Your task to perform on an android device: change timer sound Image 0: 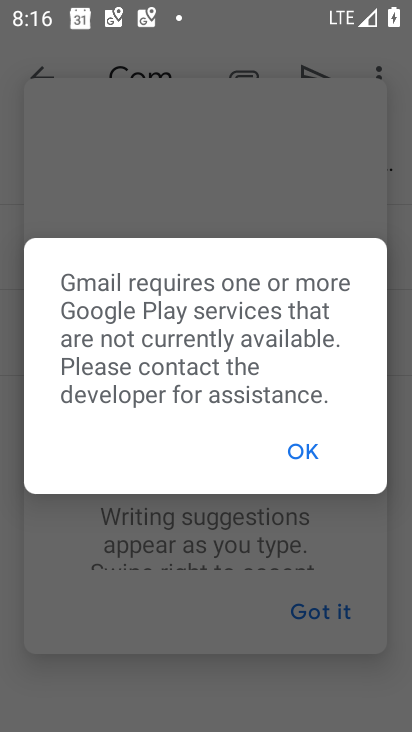
Step 0: press home button
Your task to perform on an android device: change timer sound Image 1: 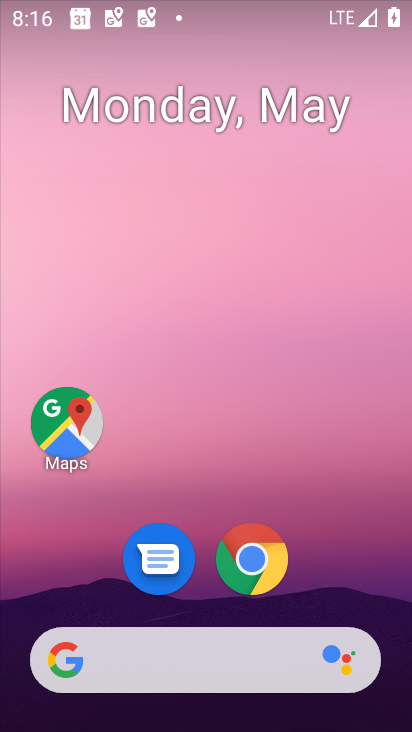
Step 1: drag from (392, 626) to (244, 32)
Your task to perform on an android device: change timer sound Image 2: 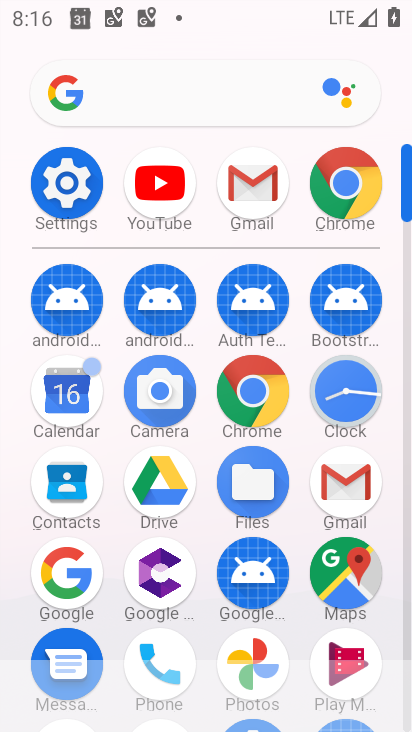
Step 2: click (344, 394)
Your task to perform on an android device: change timer sound Image 3: 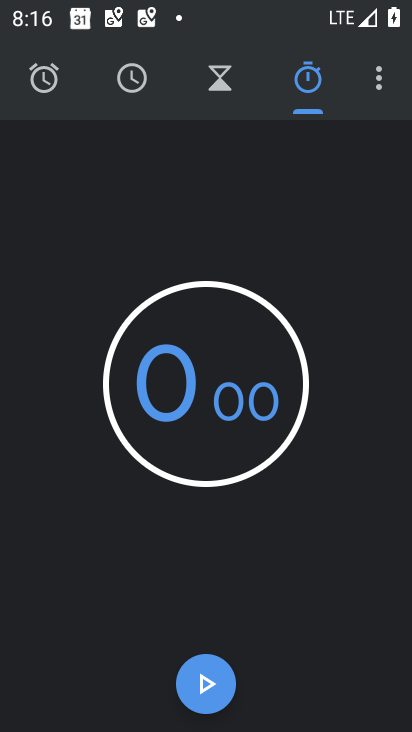
Step 3: click (386, 76)
Your task to perform on an android device: change timer sound Image 4: 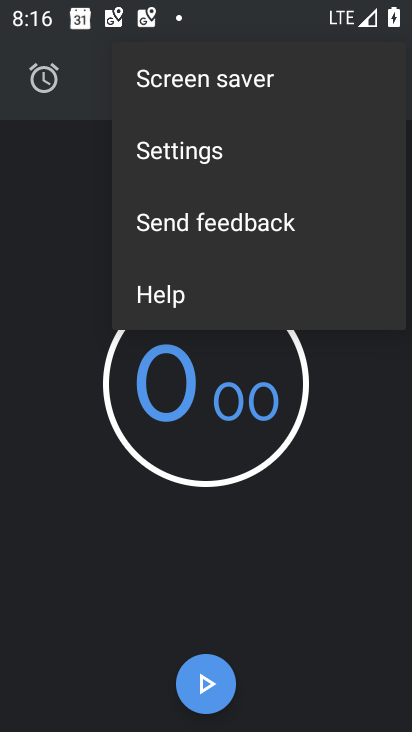
Step 4: click (188, 147)
Your task to perform on an android device: change timer sound Image 5: 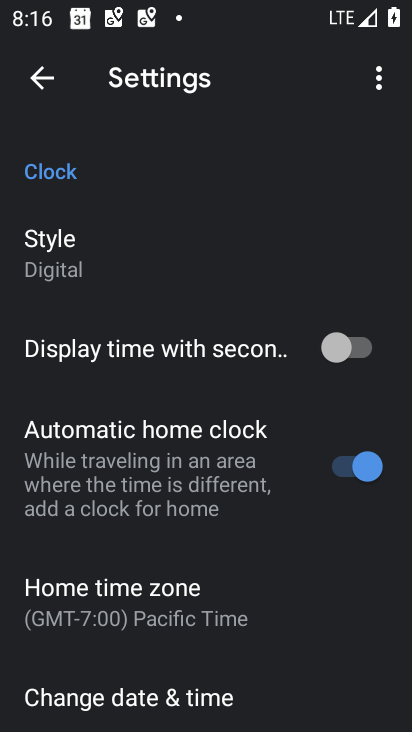
Step 5: drag from (156, 666) to (193, 203)
Your task to perform on an android device: change timer sound Image 6: 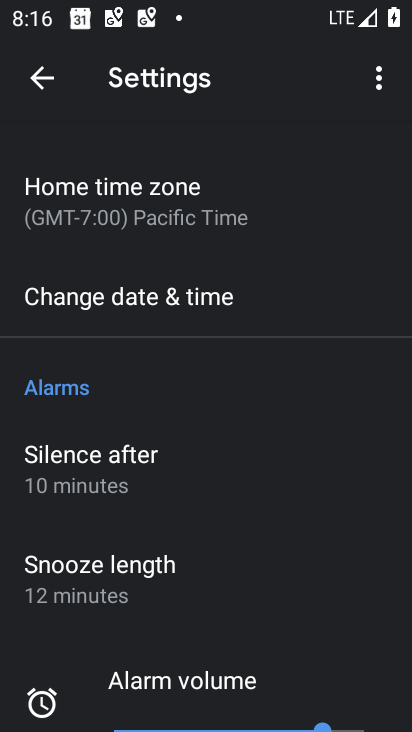
Step 6: drag from (133, 560) to (178, 223)
Your task to perform on an android device: change timer sound Image 7: 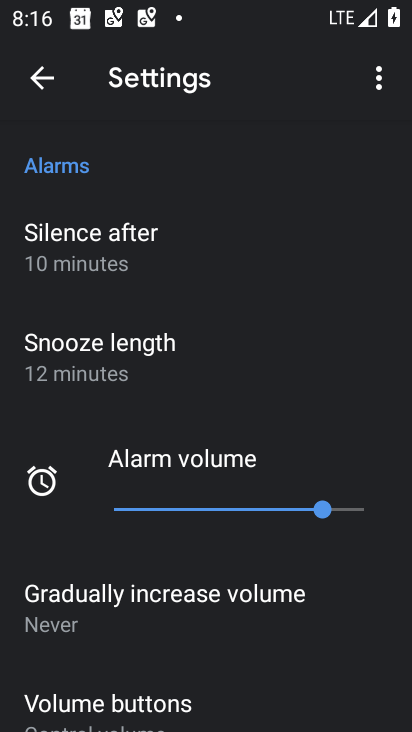
Step 7: drag from (140, 668) to (176, 127)
Your task to perform on an android device: change timer sound Image 8: 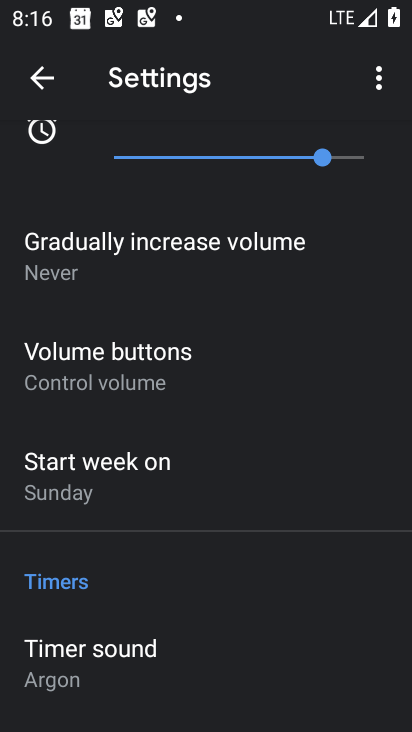
Step 8: click (101, 661)
Your task to perform on an android device: change timer sound Image 9: 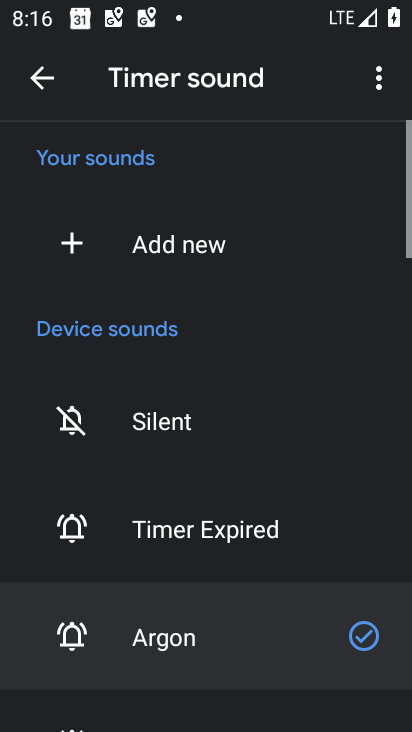
Step 9: click (165, 520)
Your task to perform on an android device: change timer sound Image 10: 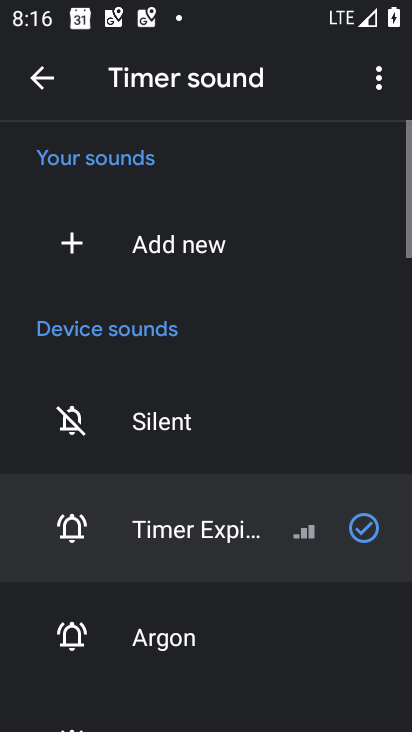
Step 10: task complete